Your task to perform on an android device: change the clock style Image 0: 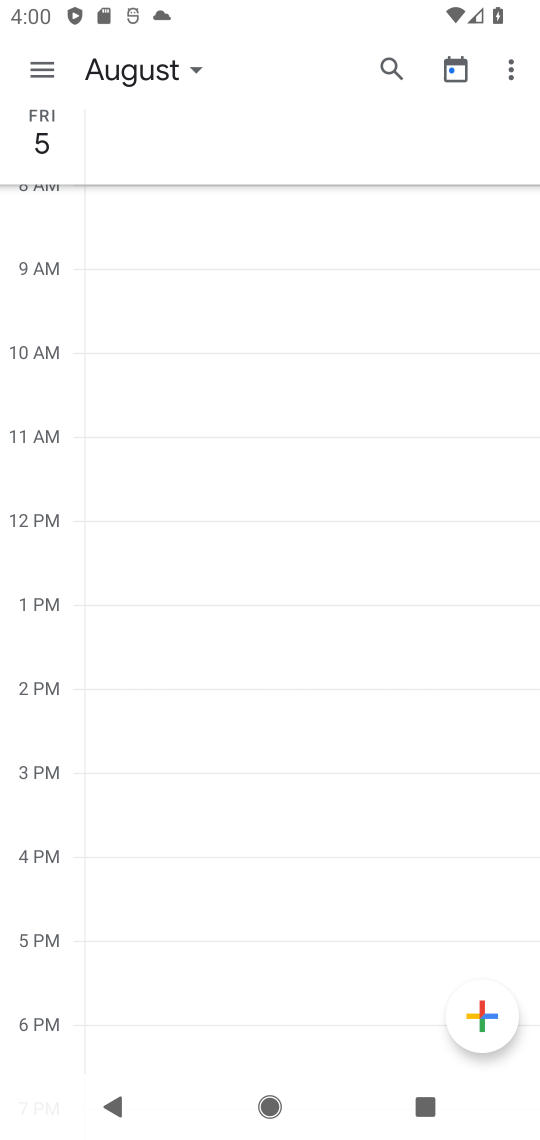
Step 0: press home button
Your task to perform on an android device: change the clock style Image 1: 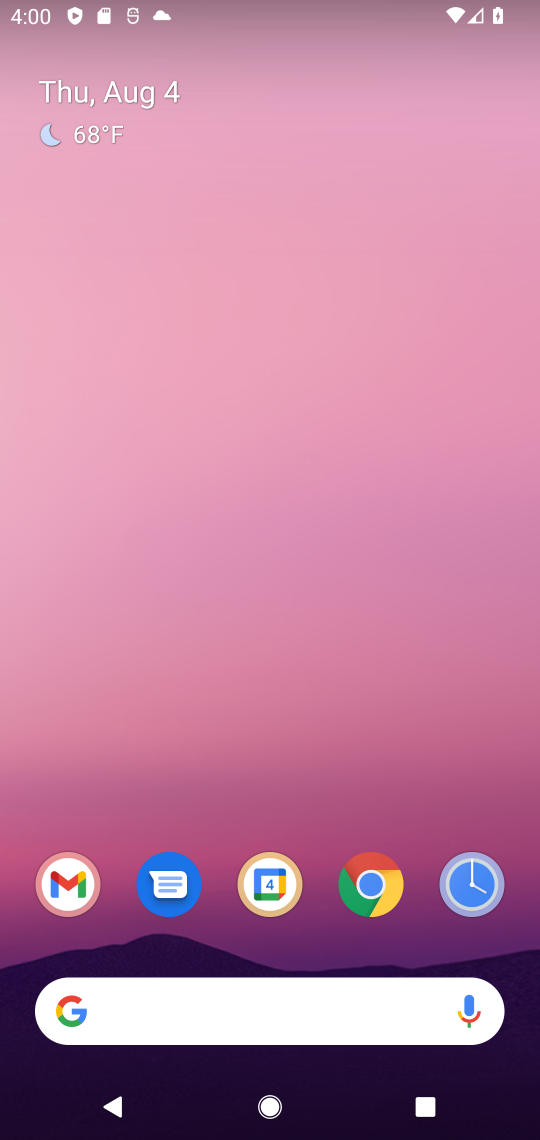
Step 1: drag from (202, 1085) to (255, 267)
Your task to perform on an android device: change the clock style Image 2: 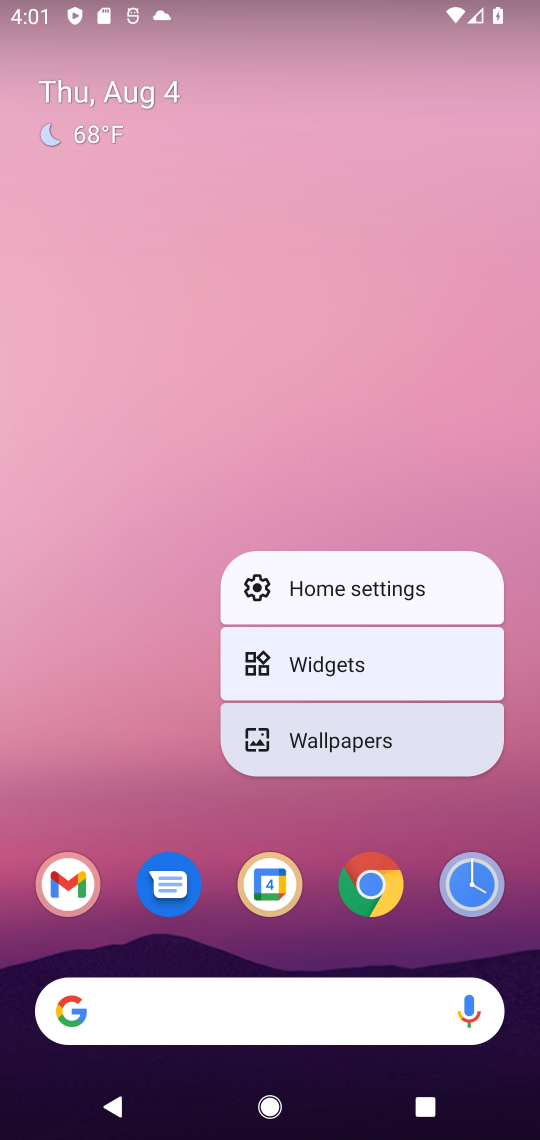
Step 2: click (168, 785)
Your task to perform on an android device: change the clock style Image 3: 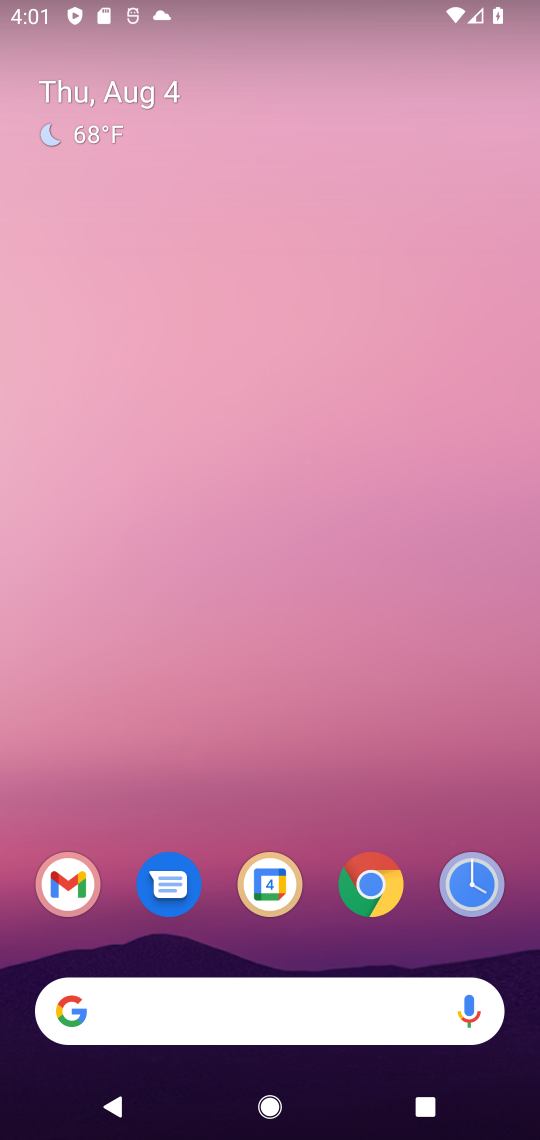
Step 3: drag from (252, 924) to (269, 254)
Your task to perform on an android device: change the clock style Image 4: 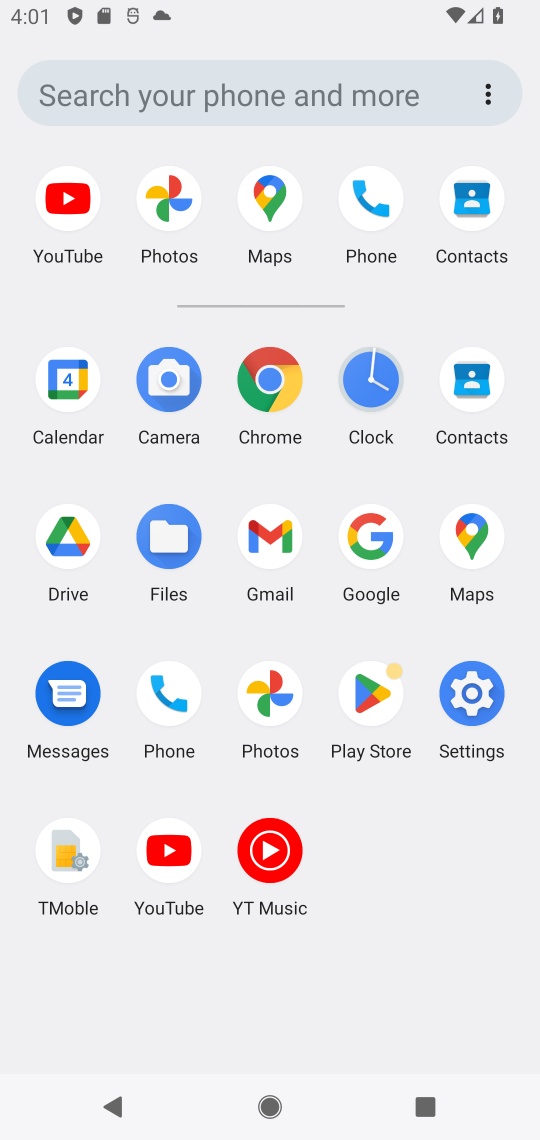
Step 4: click (389, 367)
Your task to perform on an android device: change the clock style Image 5: 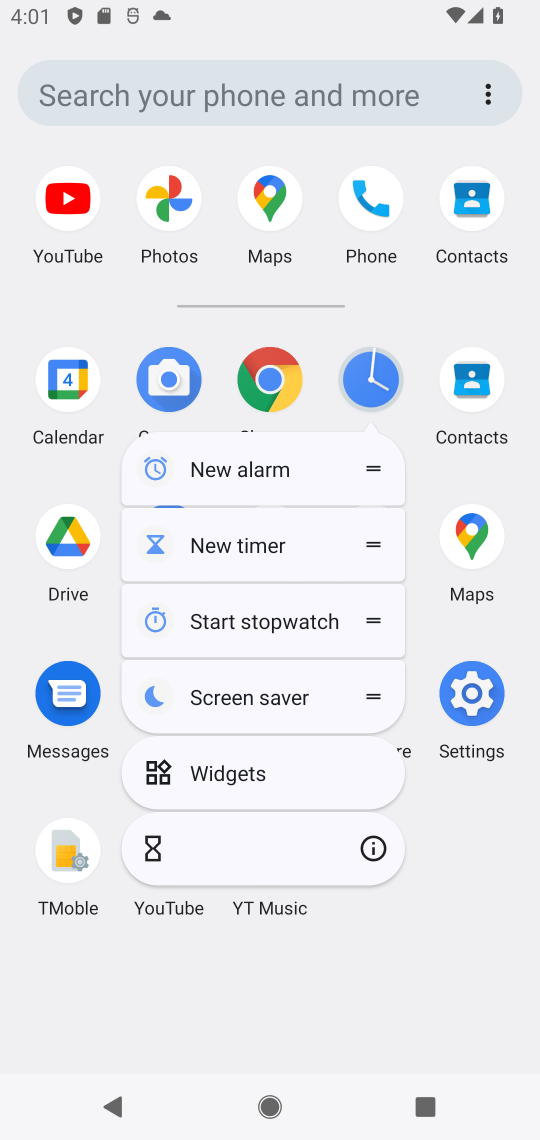
Step 5: click (267, 376)
Your task to perform on an android device: change the clock style Image 6: 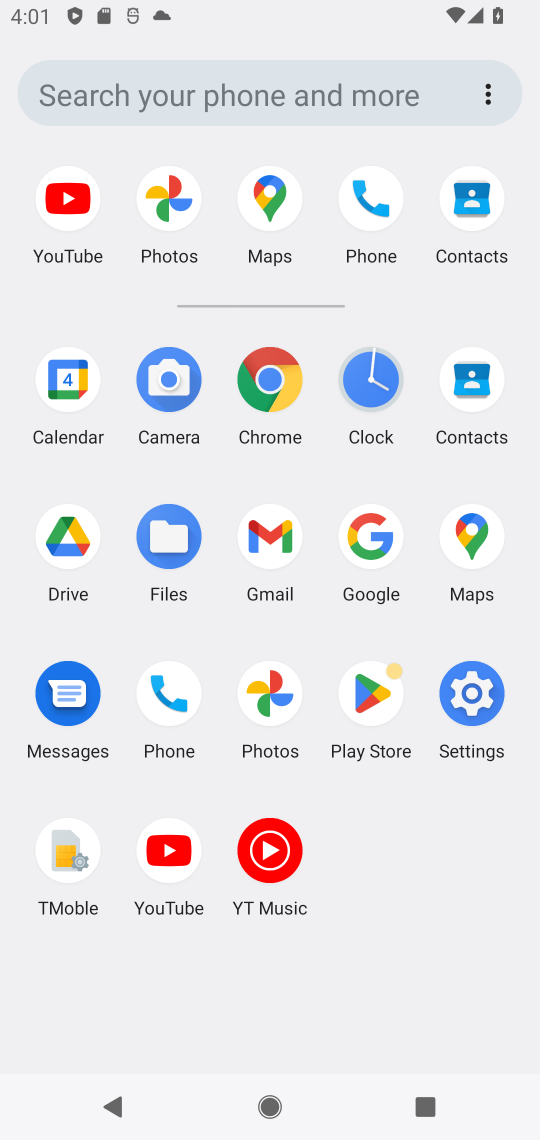
Step 6: click (382, 382)
Your task to perform on an android device: change the clock style Image 7: 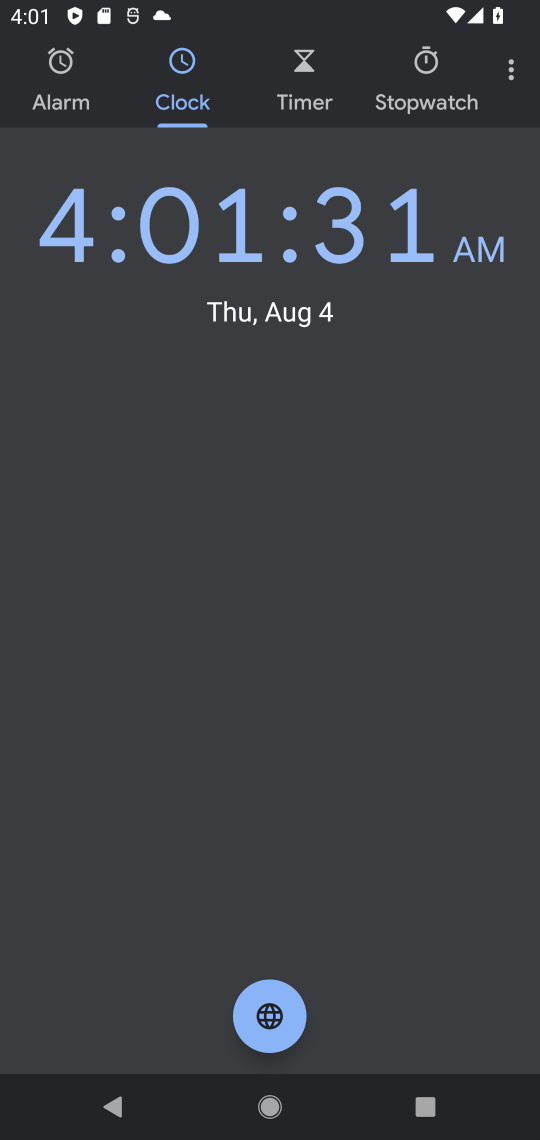
Step 7: click (511, 55)
Your task to perform on an android device: change the clock style Image 8: 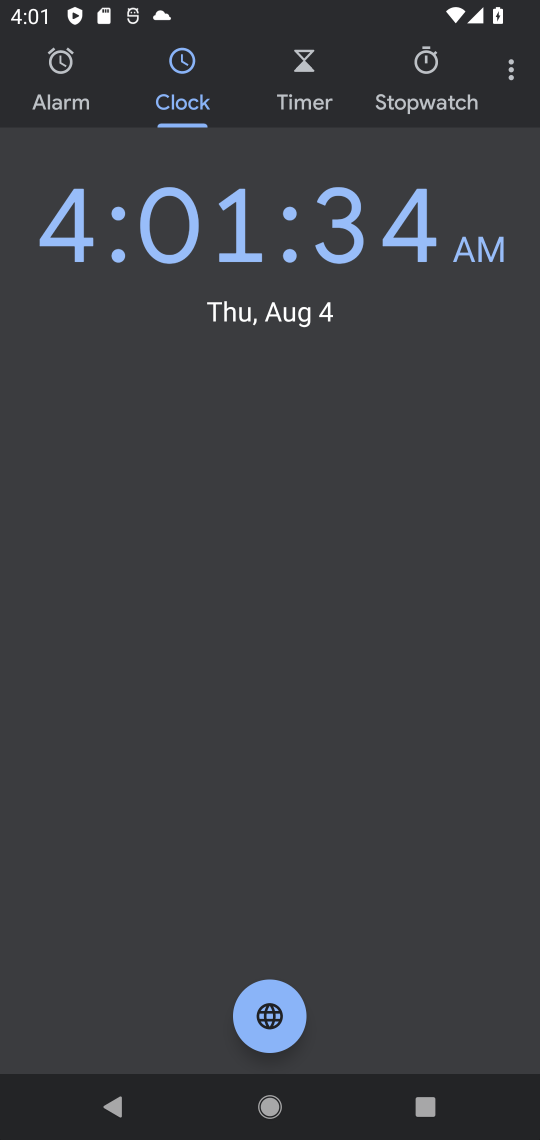
Step 8: click (510, 67)
Your task to perform on an android device: change the clock style Image 9: 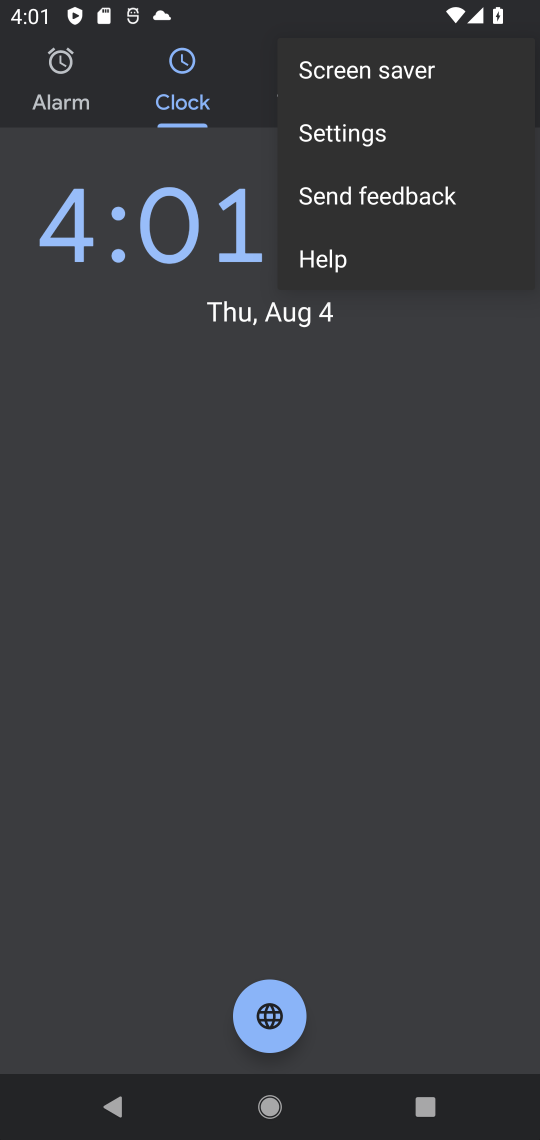
Step 9: click (392, 124)
Your task to perform on an android device: change the clock style Image 10: 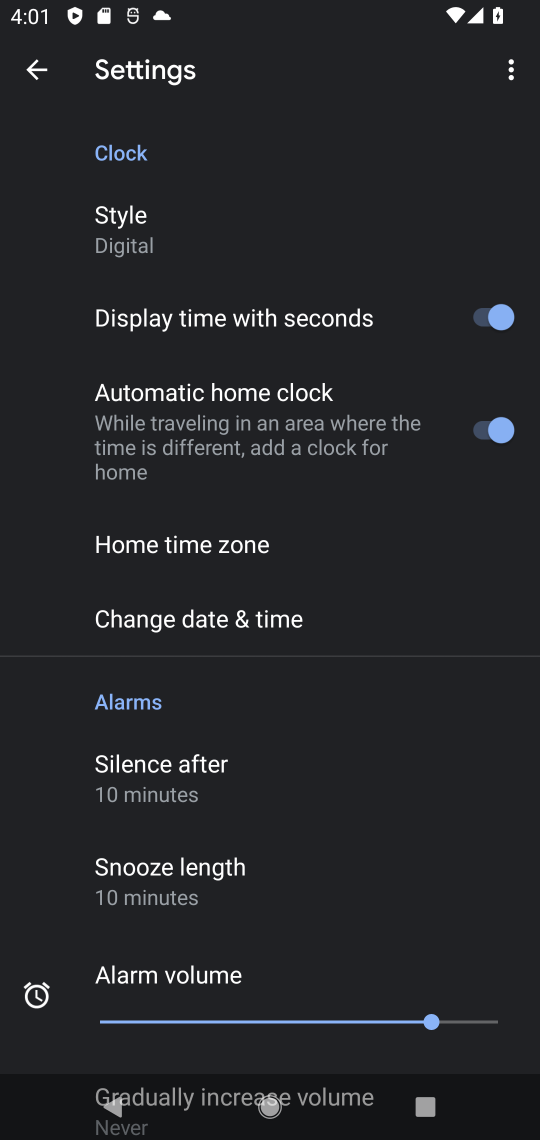
Step 10: click (118, 232)
Your task to perform on an android device: change the clock style Image 11: 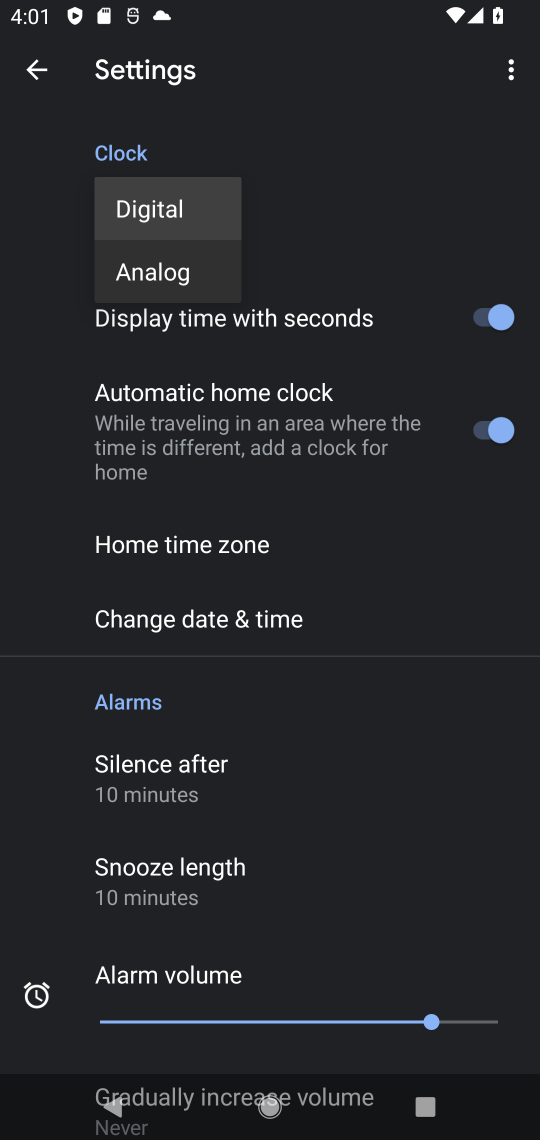
Step 11: click (152, 293)
Your task to perform on an android device: change the clock style Image 12: 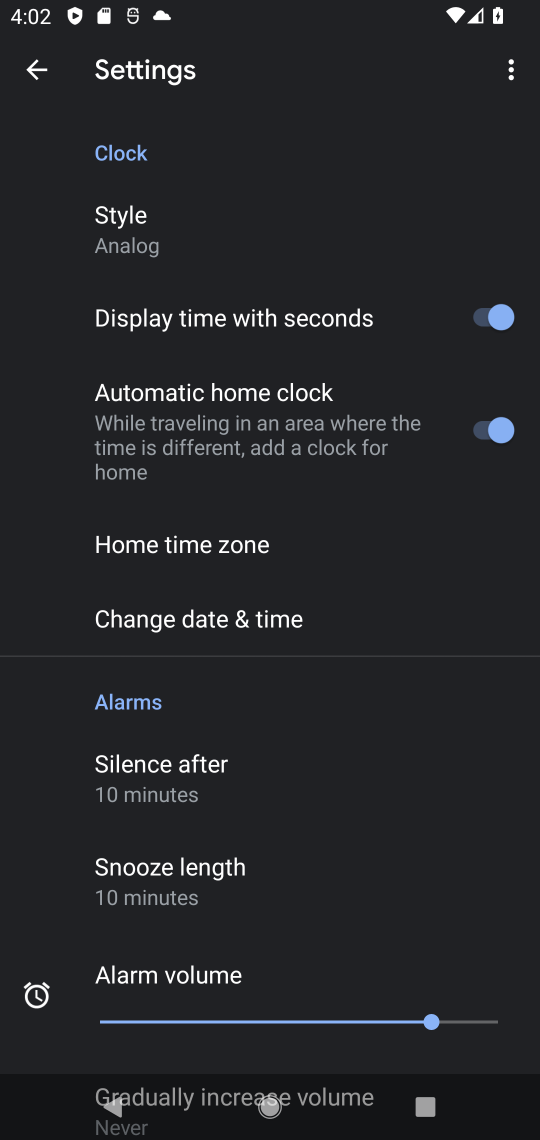
Step 12: task complete